Your task to perform on an android device: Open settings on Google Maps Image 0: 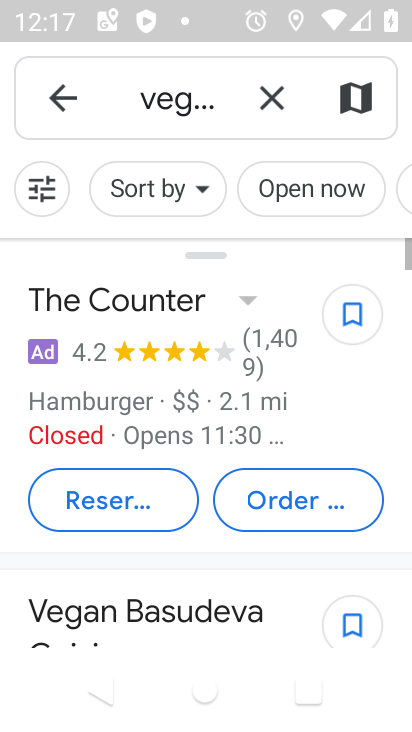
Step 0: press home button
Your task to perform on an android device: Open settings on Google Maps Image 1: 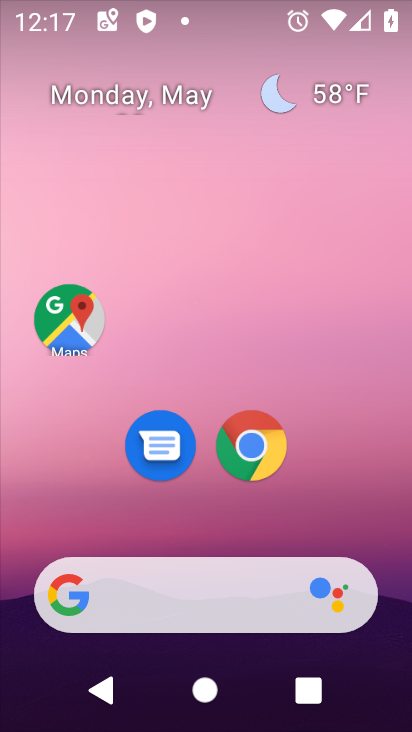
Step 1: click (71, 316)
Your task to perform on an android device: Open settings on Google Maps Image 2: 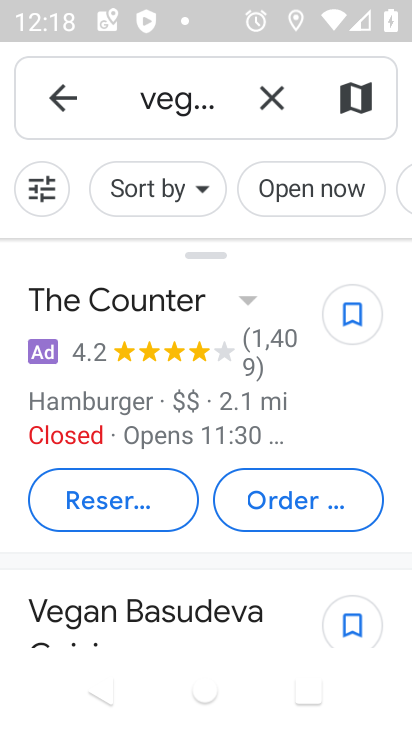
Step 2: click (70, 106)
Your task to perform on an android device: Open settings on Google Maps Image 3: 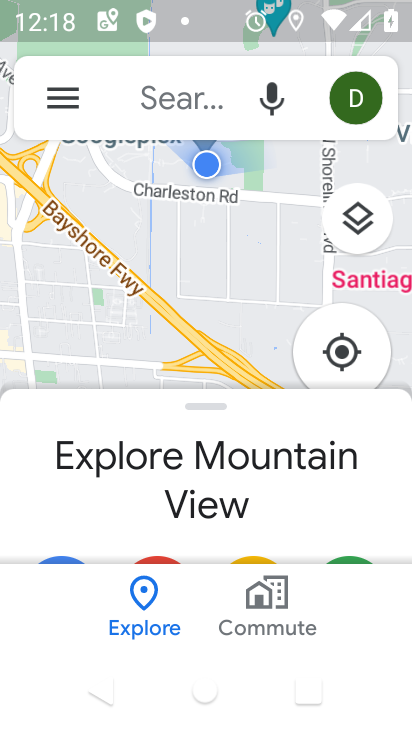
Step 3: click (55, 100)
Your task to perform on an android device: Open settings on Google Maps Image 4: 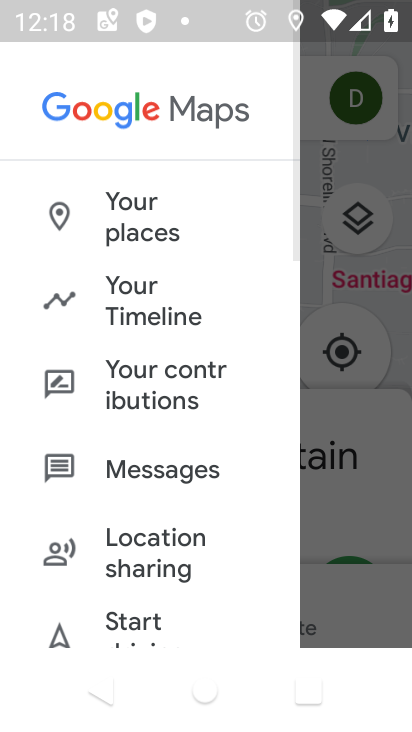
Step 4: drag from (188, 609) to (181, 82)
Your task to perform on an android device: Open settings on Google Maps Image 5: 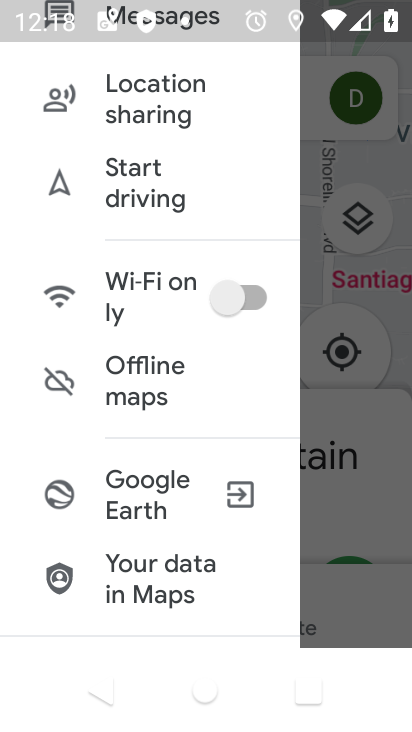
Step 5: drag from (180, 542) to (201, 74)
Your task to perform on an android device: Open settings on Google Maps Image 6: 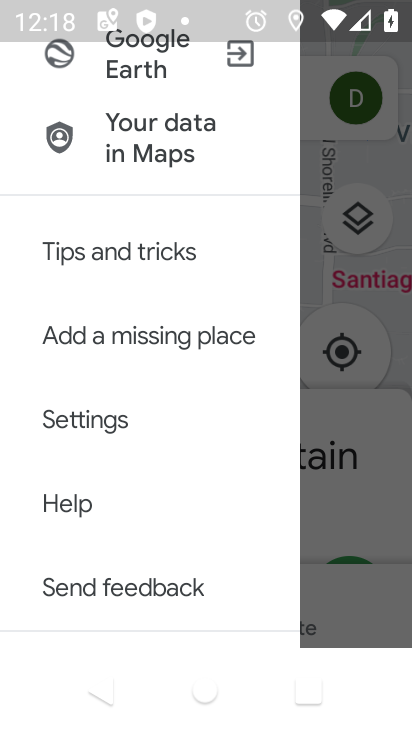
Step 6: click (142, 415)
Your task to perform on an android device: Open settings on Google Maps Image 7: 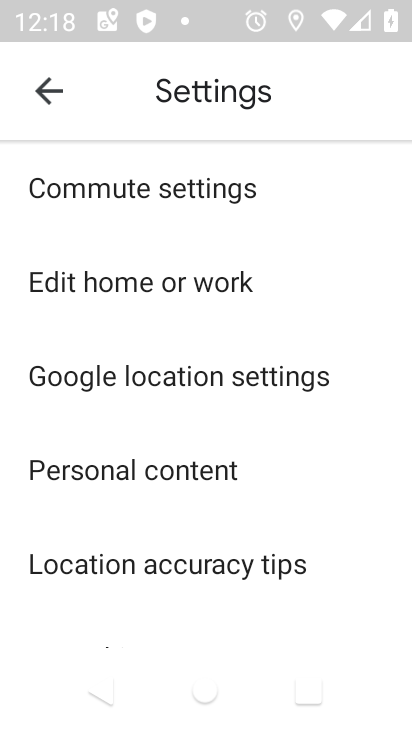
Step 7: task complete